Your task to perform on an android device: turn on translation in the chrome app Image 0: 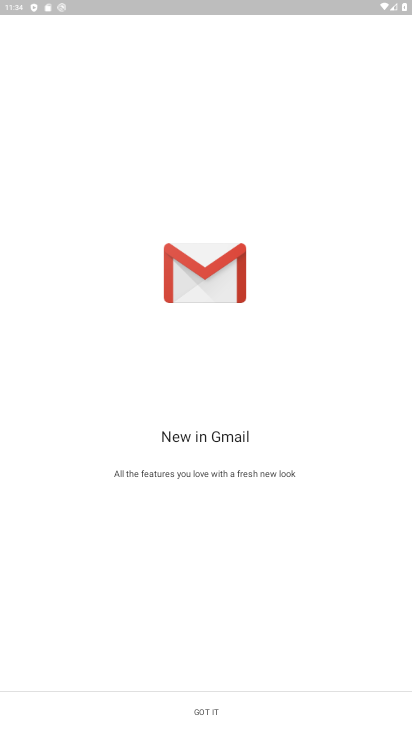
Step 0: press home button
Your task to perform on an android device: turn on translation in the chrome app Image 1: 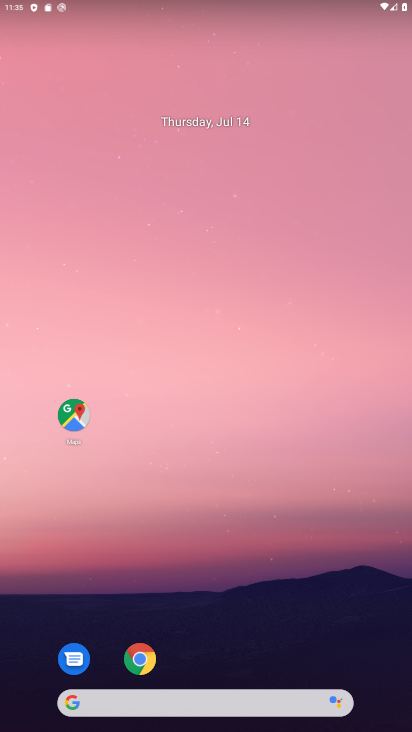
Step 1: click (136, 663)
Your task to perform on an android device: turn on translation in the chrome app Image 2: 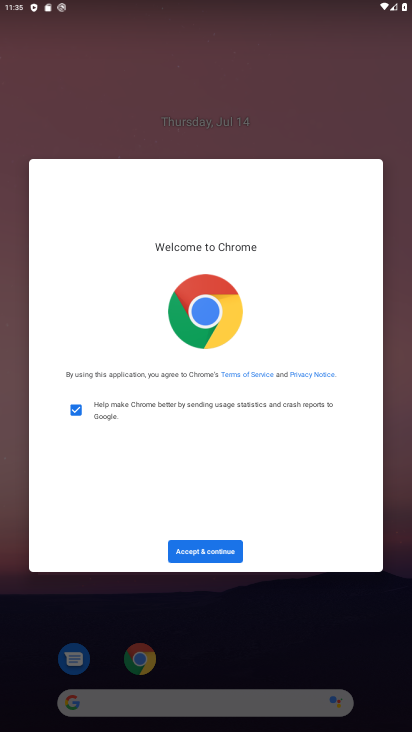
Step 2: click (199, 564)
Your task to perform on an android device: turn on translation in the chrome app Image 3: 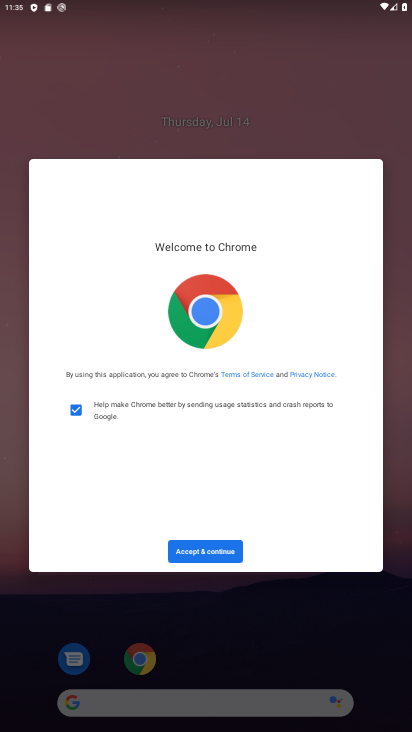
Step 3: click (200, 560)
Your task to perform on an android device: turn on translation in the chrome app Image 4: 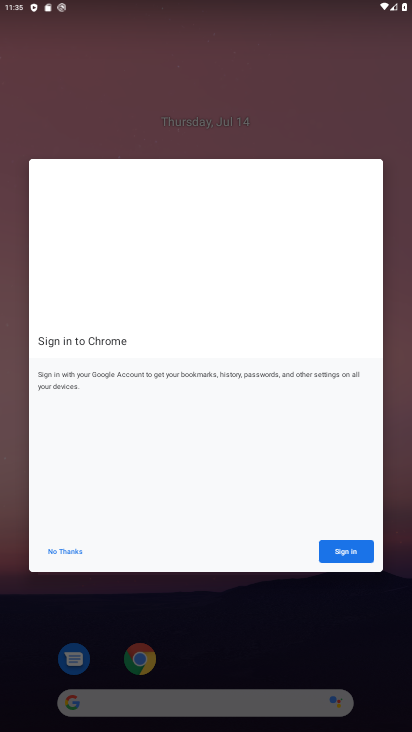
Step 4: click (75, 559)
Your task to perform on an android device: turn on translation in the chrome app Image 5: 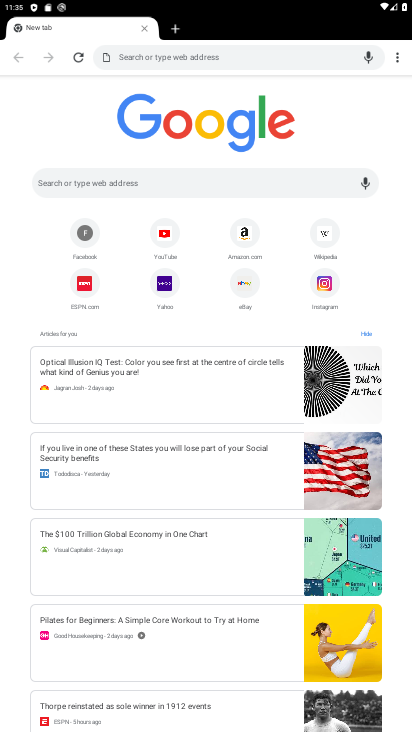
Step 5: click (398, 56)
Your task to perform on an android device: turn on translation in the chrome app Image 6: 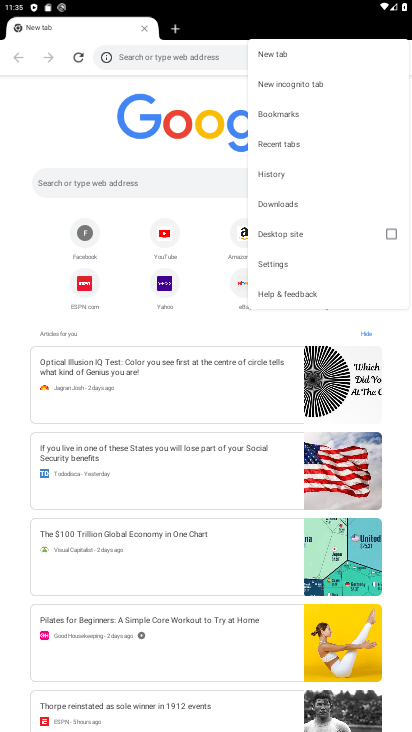
Step 6: click (267, 264)
Your task to perform on an android device: turn on translation in the chrome app Image 7: 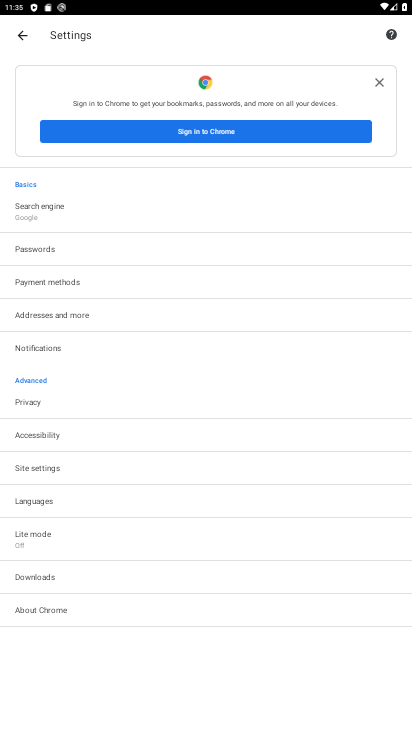
Step 7: click (83, 495)
Your task to perform on an android device: turn on translation in the chrome app Image 8: 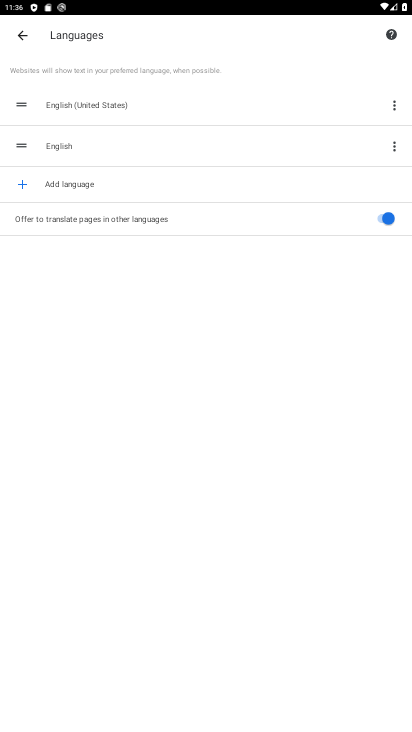
Step 8: task complete